Your task to perform on an android device: toggle improve location accuracy Image 0: 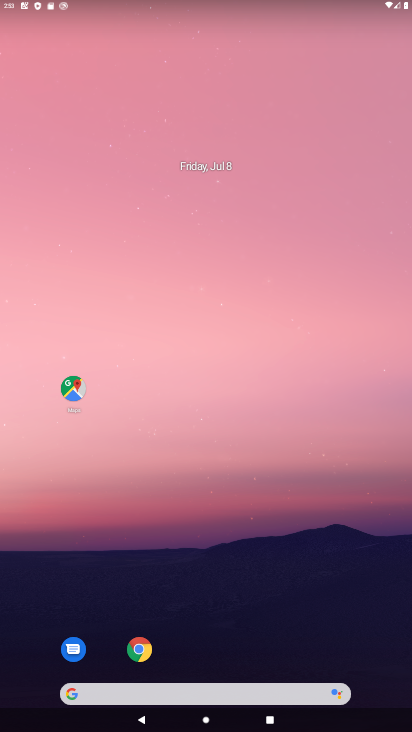
Step 0: drag from (206, 678) to (155, 144)
Your task to perform on an android device: toggle improve location accuracy Image 1: 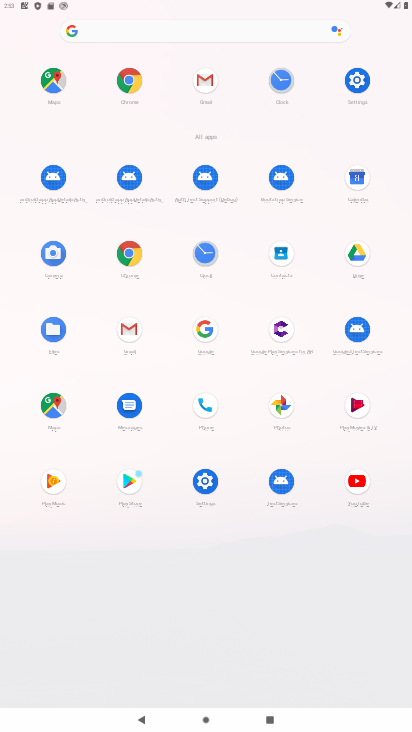
Step 1: click (367, 82)
Your task to perform on an android device: toggle improve location accuracy Image 2: 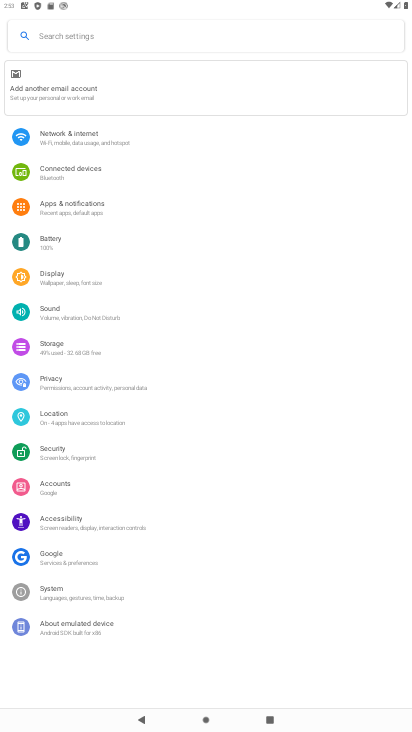
Step 2: click (48, 415)
Your task to perform on an android device: toggle improve location accuracy Image 3: 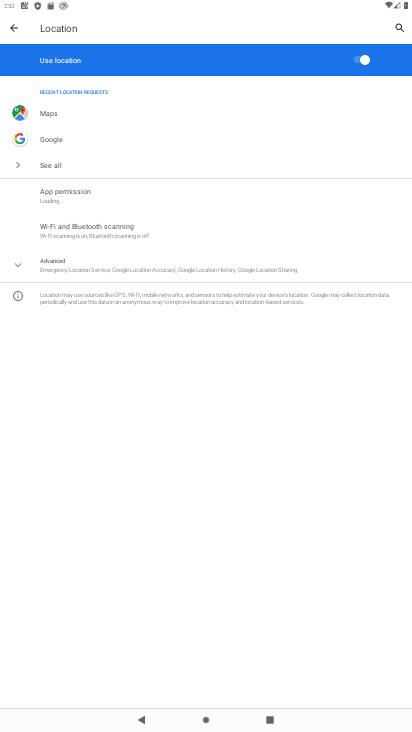
Step 3: click (52, 259)
Your task to perform on an android device: toggle improve location accuracy Image 4: 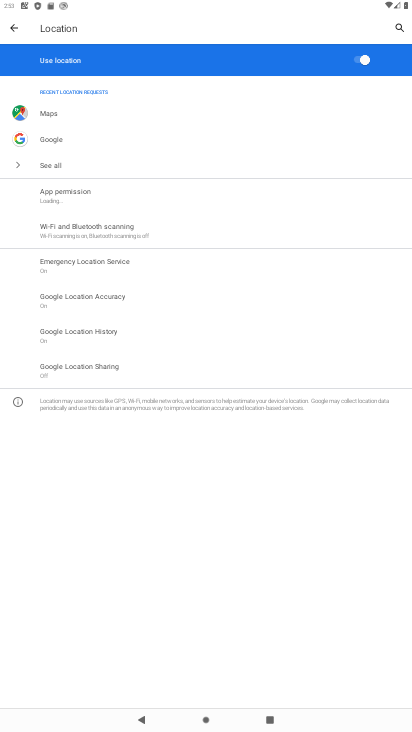
Step 4: click (107, 297)
Your task to perform on an android device: toggle improve location accuracy Image 5: 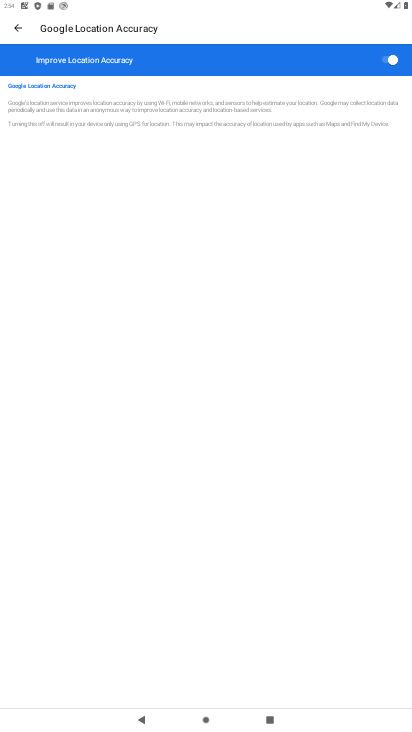
Step 5: click (385, 60)
Your task to perform on an android device: toggle improve location accuracy Image 6: 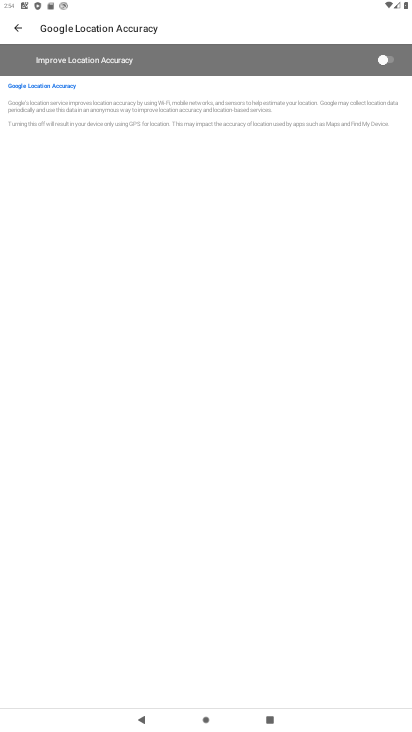
Step 6: task complete